Your task to perform on an android device: Toggle the flashlight Image 0: 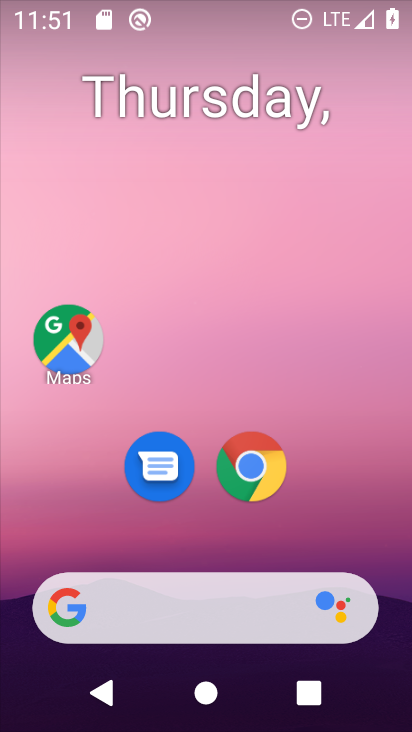
Step 0: drag from (291, 17) to (244, 494)
Your task to perform on an android device: Toggle the flashlight Image 1: 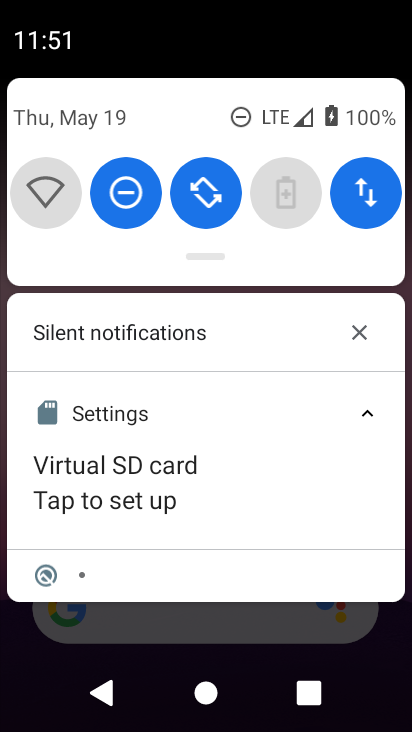
Step 1: task complete